Your task to perform on an android device: Search for sushi restaurants on Maps Image 0: 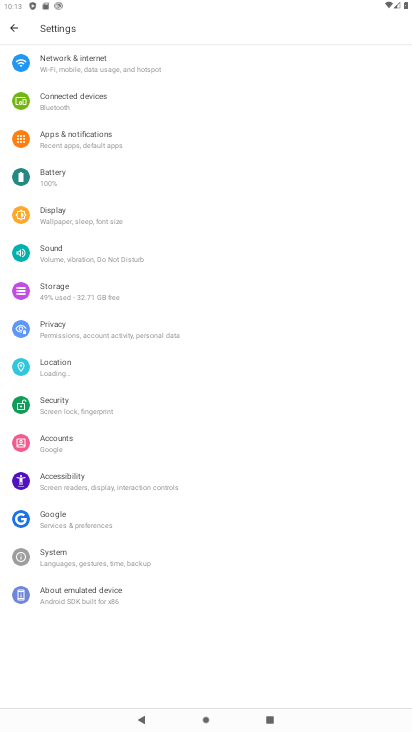
Step 0: press home button
Your task to perform on an android device: Search for sushi restaurants on Maps Image 1: 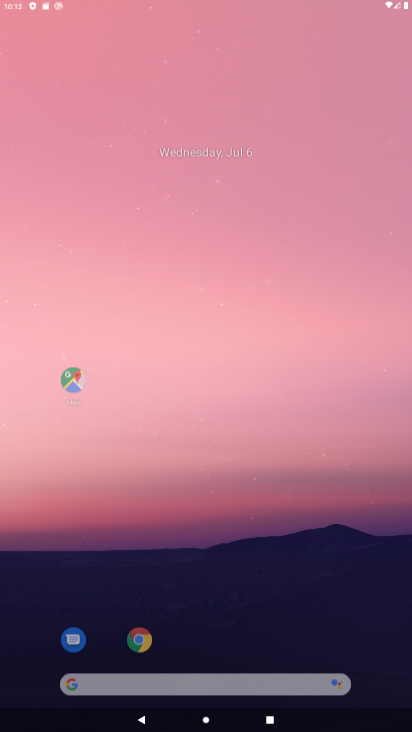
Step 1: drag from (411, 699) to (250, 0)
Your task to perform on an android device: Search for sushi restaurants on Maps Image 2: 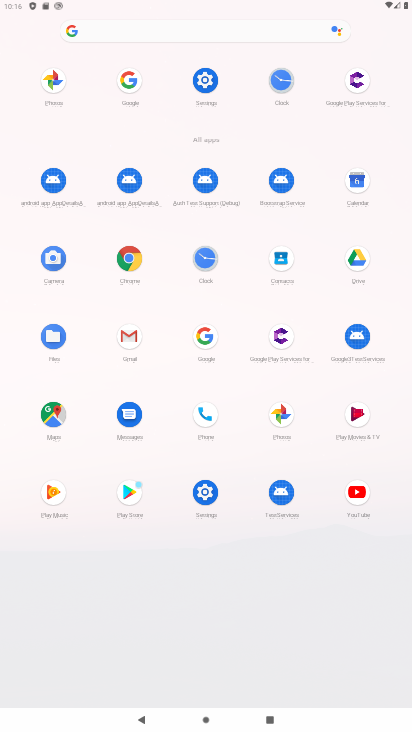
Step 2: click (55, 417)
Your task to perform on an android device: Search for sushi restaurants on Maps Image 3: 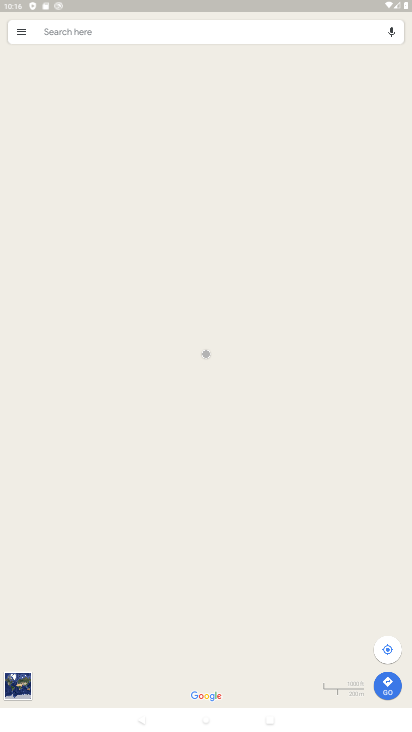
Step 3: click (95, 36)
Your task to perform on an android device: Search for sushi restaurants on Maps Image 4: 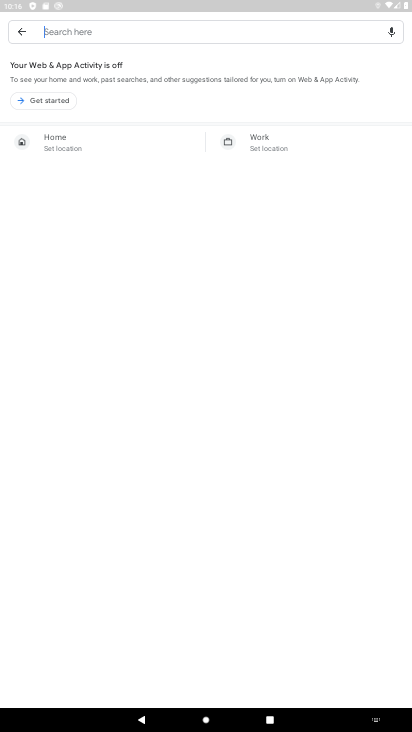
Step 4: click (42, 98)
Your task to perform on an android device: Search for sushi restaurants on Maps Image 5: 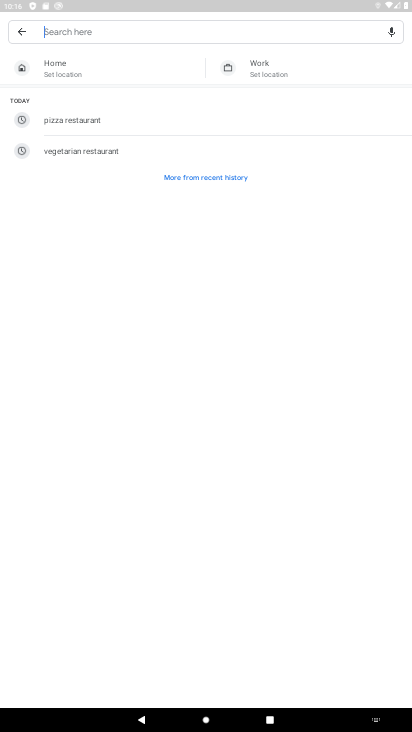
Step 5: type "sushi restaurants"
Your task to perform on an android device: Search for sushi restaurants on Maps Image 6: 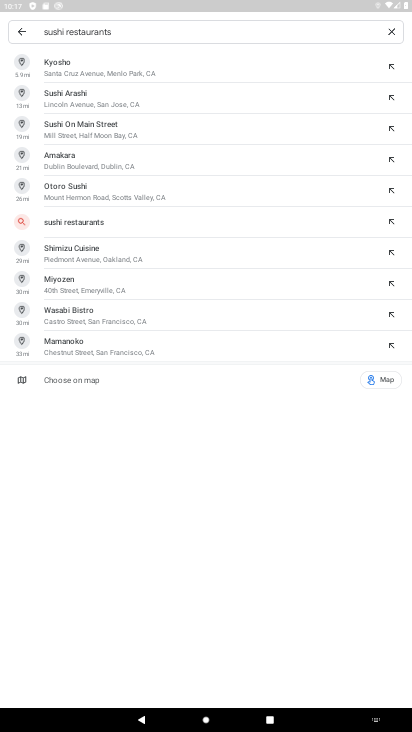
Step 6: click (99, 221)
Your task to perform on an android device: Search for sushi restaurants on Maps Image 7: 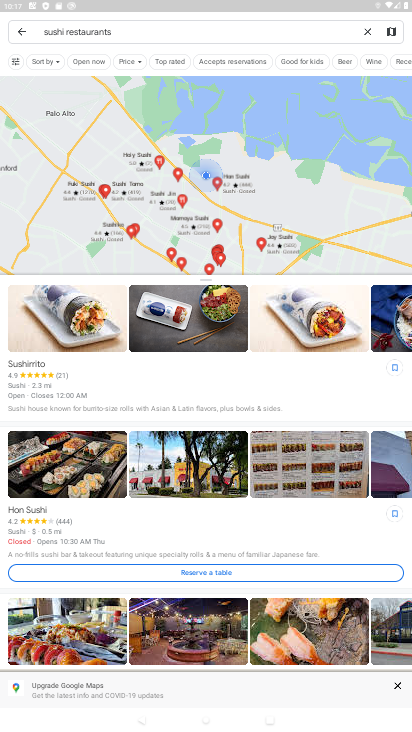
Step 7: task complete